Your task to perform on an android device: turn off translation in the chrome app Image 0: 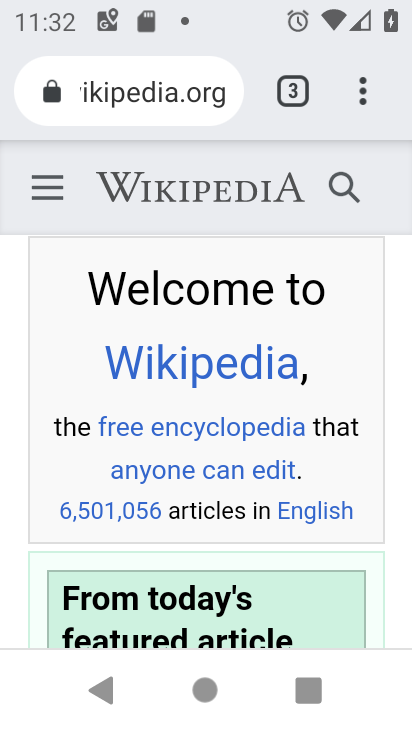
Step 0: press home button
Your task to perform on an android device: turn off translation in the chrome app Image 1: 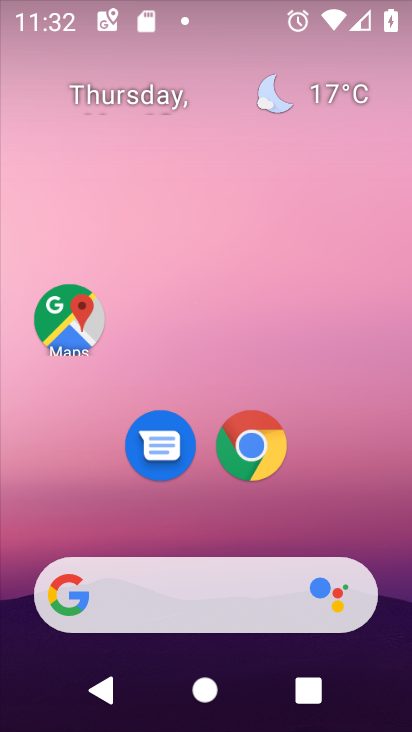
Step 1: drag from (217, 509) to (246, 234)
Your task to perform on an android device: turn off translation in the chrome app Image 2: 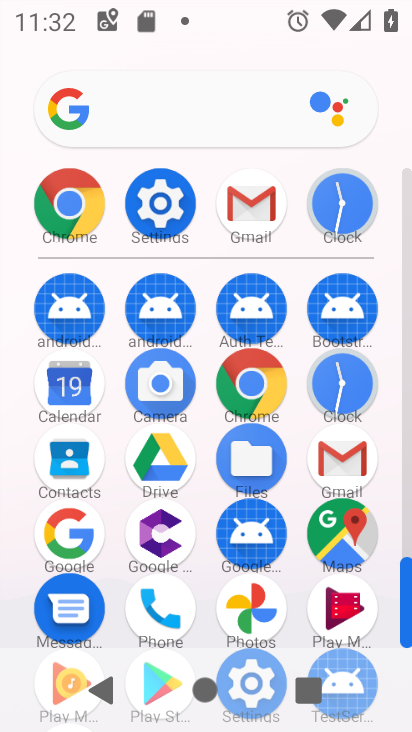
Step 2: click (266, 381)
Your task to perform on an android device: turn off translation in the chrome app Image 3: 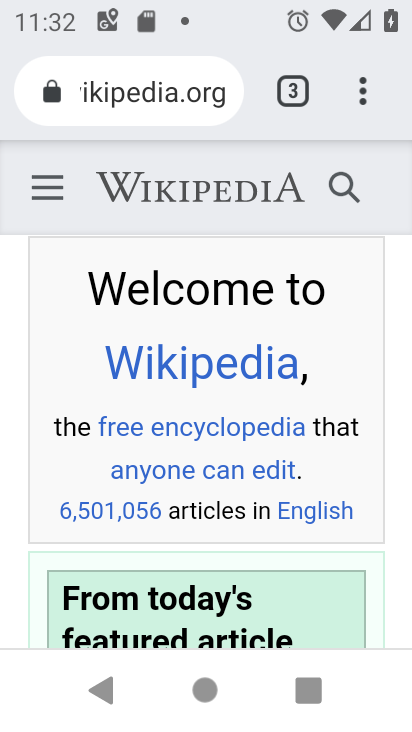
Step 3: click (348, 96)
Your task to perform on an android device: turn off translation in the chrome app Image 4: 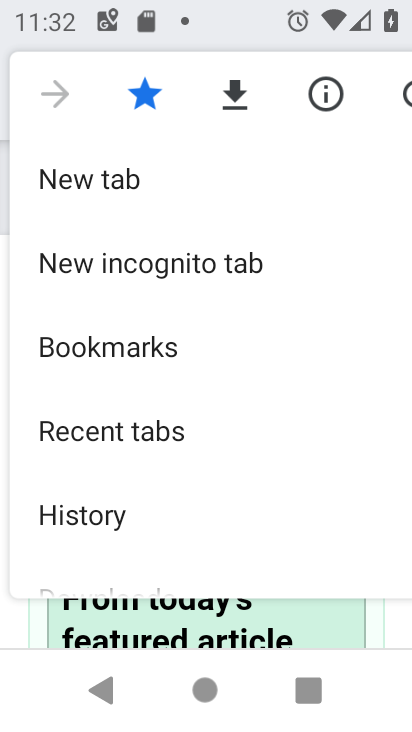
Step 4: drag from (150, 491) to (160, 271)
Your task to perform on an android device: turn off translation in the chrome app Image 5: 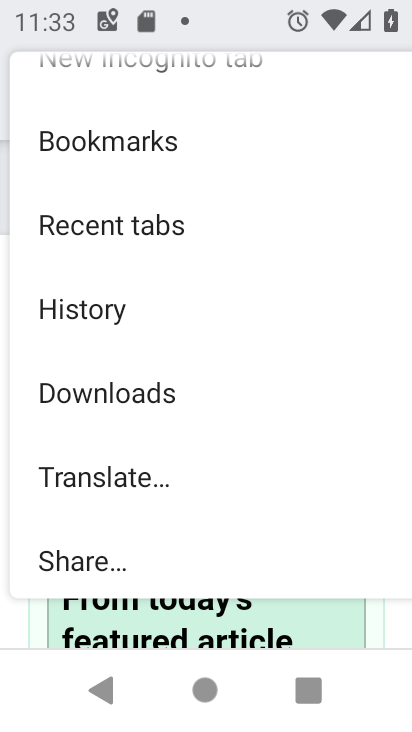
Step 5: drag from (156, 527) to (172, 306)
Your task to perform on an android device: turn off translation in the chrome app Image 6: 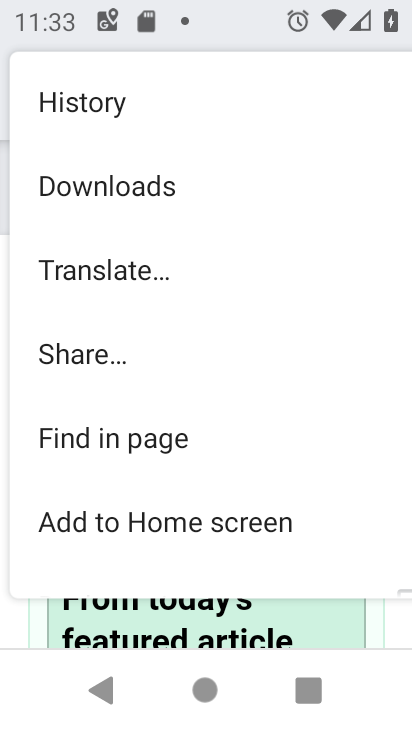
Step 6: drag from (177, 536) to (214, 306)
Your task to perform on an android device: turn off translation in the chrome app Image 7: 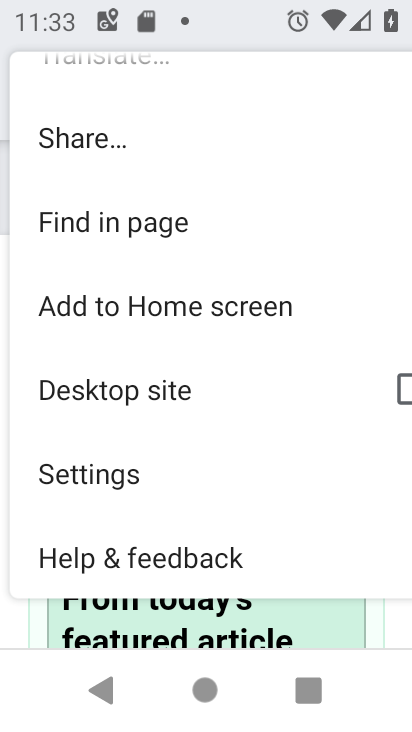
Step 7: click (152, 483)
Your task to perform on an android device: turn off translation in the chrome app Image 8: 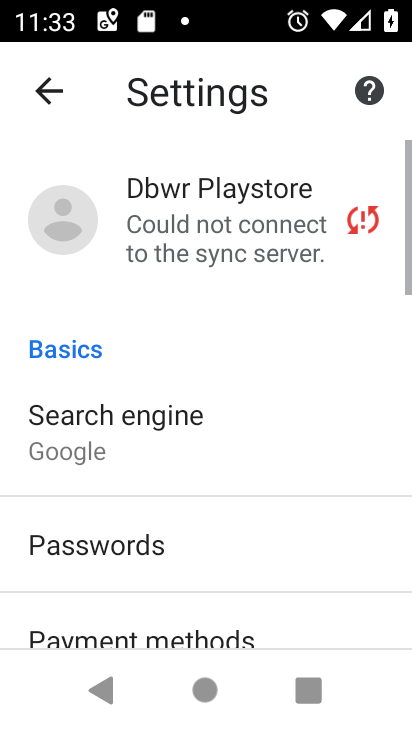
Step 8: drag from (129, 528) to (165, 295)
Your task to perform on an android device: turn off translation in the chrome app Image 9: 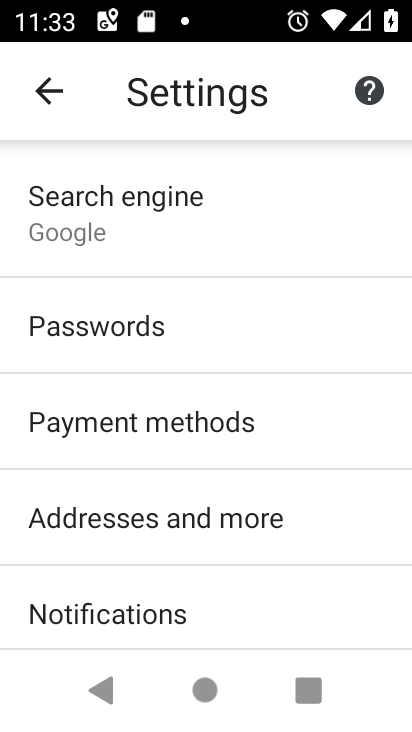
Step 9: drag from (251, 599) to (256, 340)
Your task to perform on an android device: turn off translation in the chrome app Image 10: 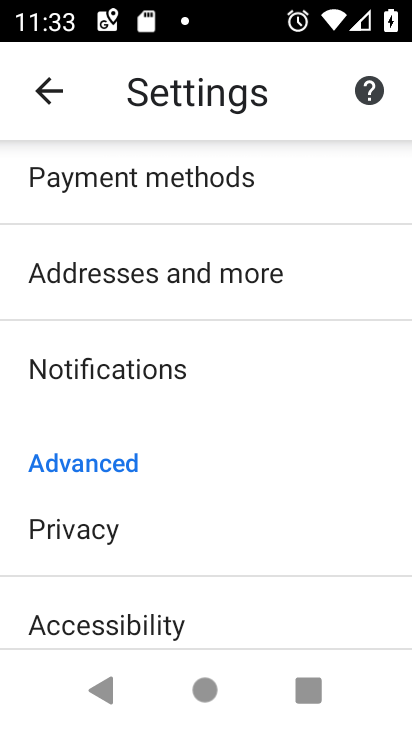
Step 10: drag from (261, 499) to (303, 210)
Your task to perform on an android device: turn off translation in the chrome app Image 11: 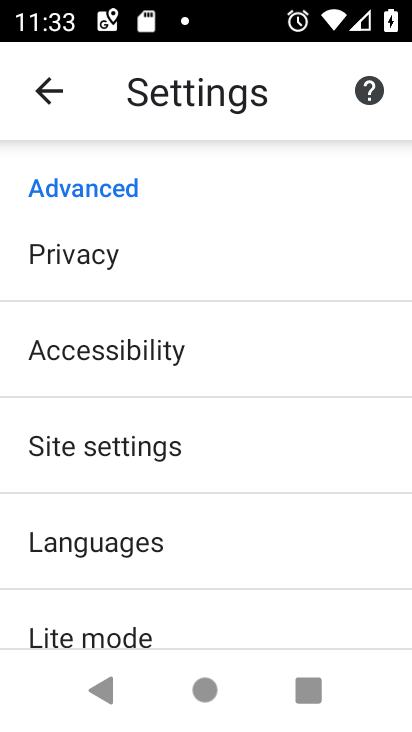
Step 11: click (216, 547)
Your task to perform on an android device: turn off translation in the chrome app Image 12: 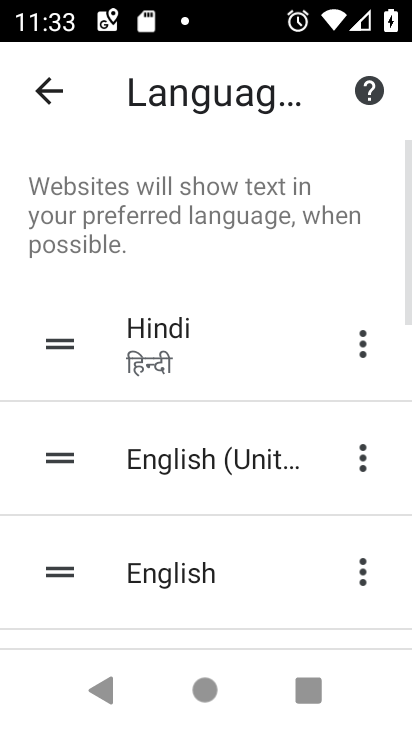
Step 12: drag from (260, 446) to (262, 156)
Your task to perform on an android device: turn off translation in the chrome app Image 13: 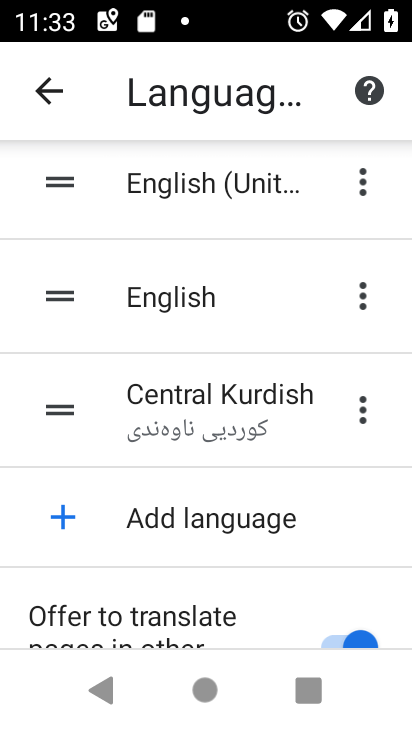
Step 13: click (333, 631)
Your task to perform on an android device: turn off translation in the chrome app Image 14: 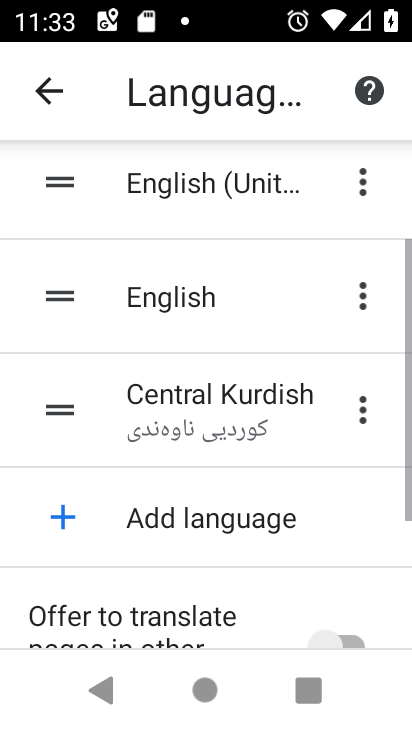
Step 14: task complete